Your task to perform on an android device: Install the Calendar app Image 0: 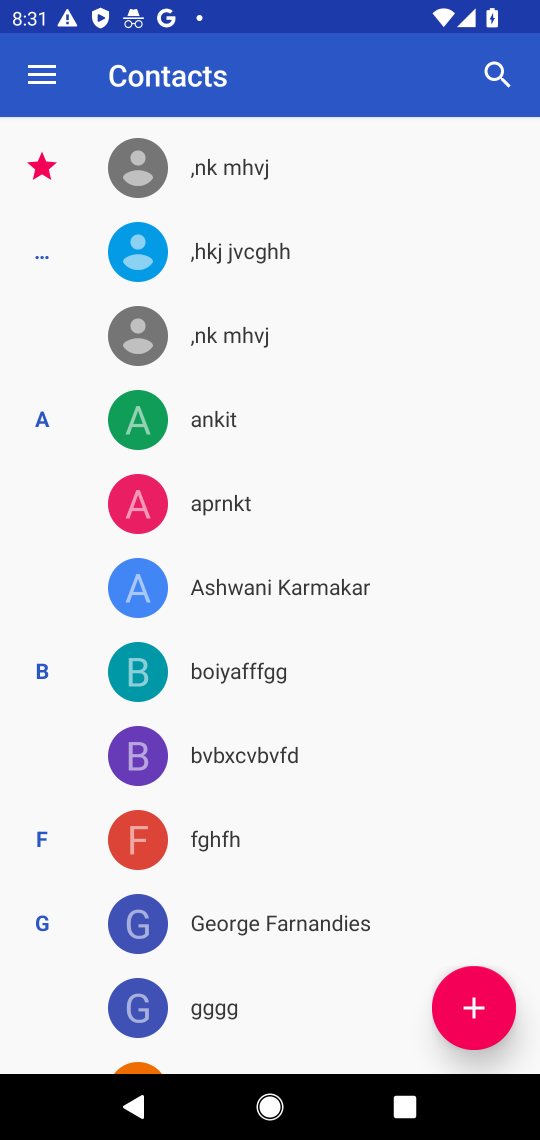
Step 0: press home button
Your task to perform on an android device: Install the Calendar app Image 1: 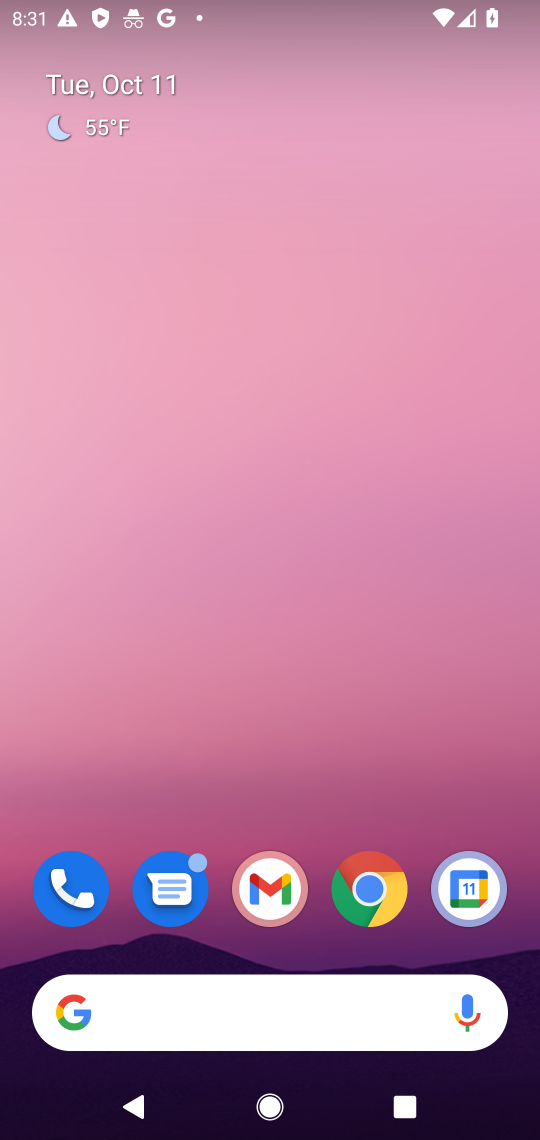
Step 1: click (483, 892)
Your task to perform on an android device: Install the Calendar app Image 2: 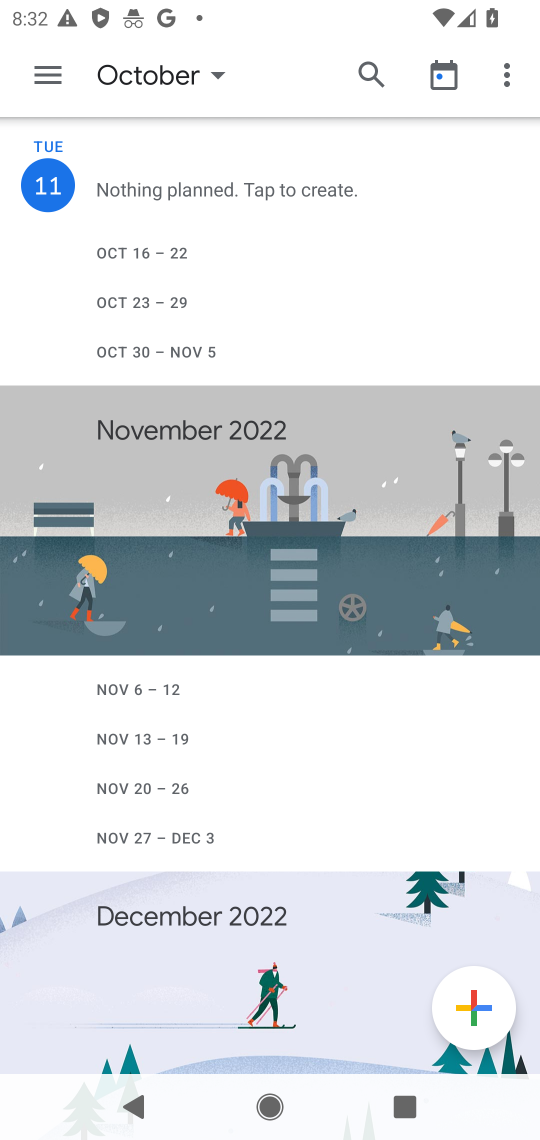
Step 2: task complete